Your task to perform on an android device: Go to privacy settings Image 0: 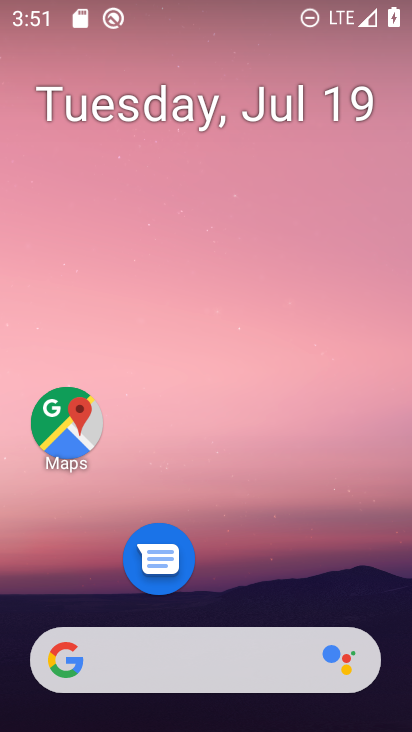
Step 0: click (293, 421)
Your task to perform on an android device: Go to privacy settings Image 1: 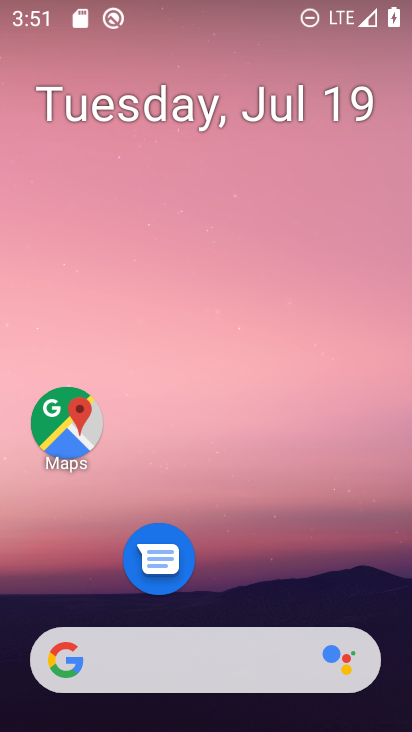
Step 1: drag from (219, 703) to (258, 225)
Your task to perform on an android device: Go to privacy settings Image 2: 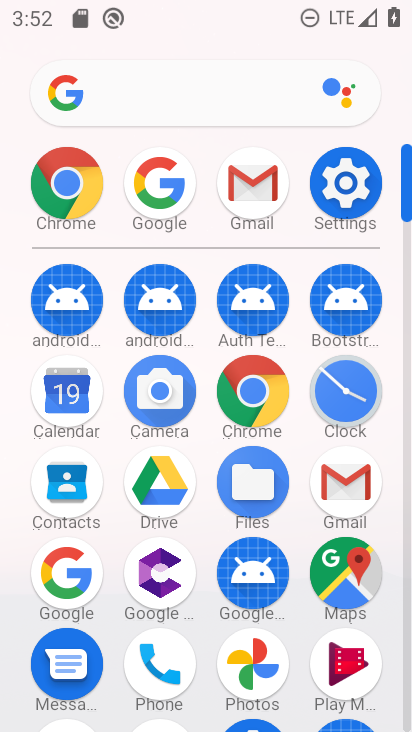
Step 2: click (347, 204)
Your task to perform on an android device: Go to privacy settings Image 3: 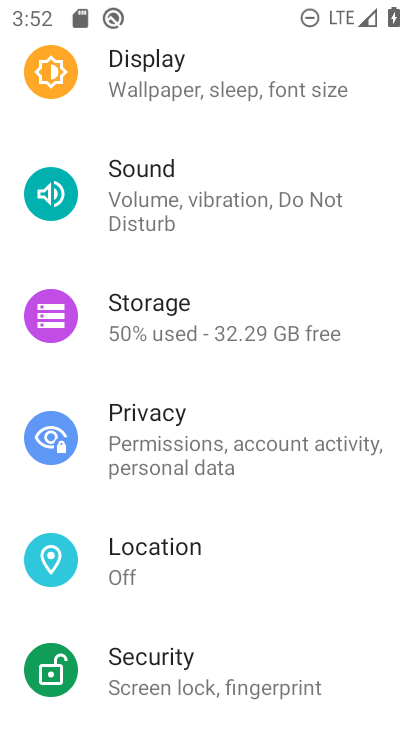
Step 3: click (193, 423)
Your task to perform on an android device: Go to privacy settings Image 4: 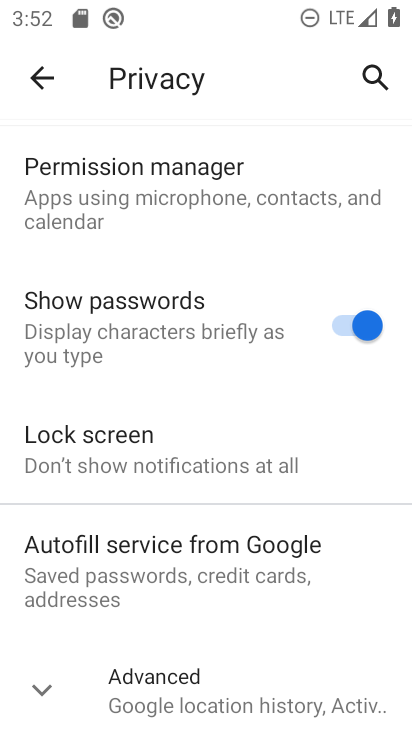
Step 4: task complete